Your task to perform on an android device: Open the web browser Image 0: 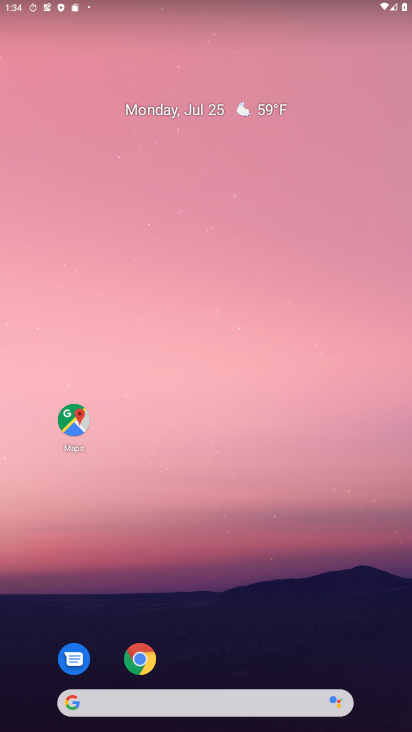
Step 0: click (134, 661)
Your task to perform on an android device: Open the web browser Image 1: 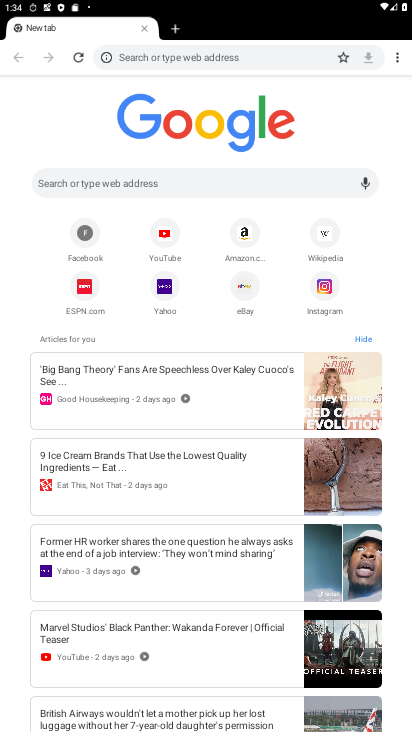
Step 1: task complete